Your task to perform on an android device: turn vacation reply on in the gmail app Image 0: 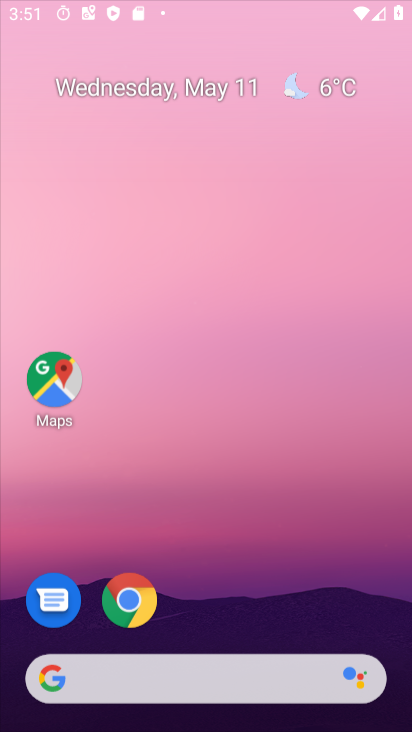
Step 0: click (264, 161)
Your task to perform on an android device: turn vacation reply on in the gmail app Image 1: 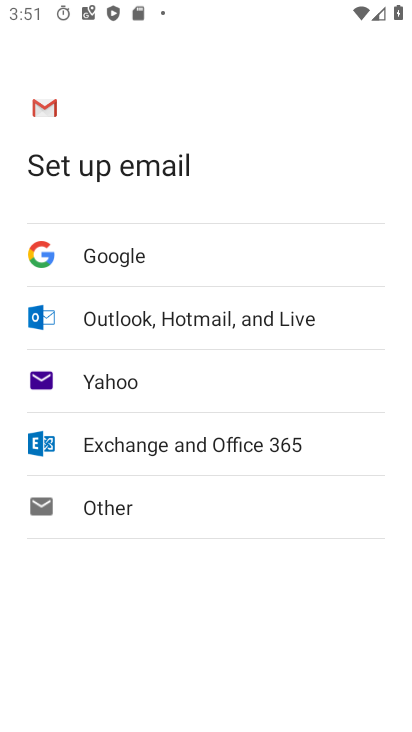
Step 1: press back button
Your task to perform on an android device: turn vacation reply on in the gmail app Image 2: 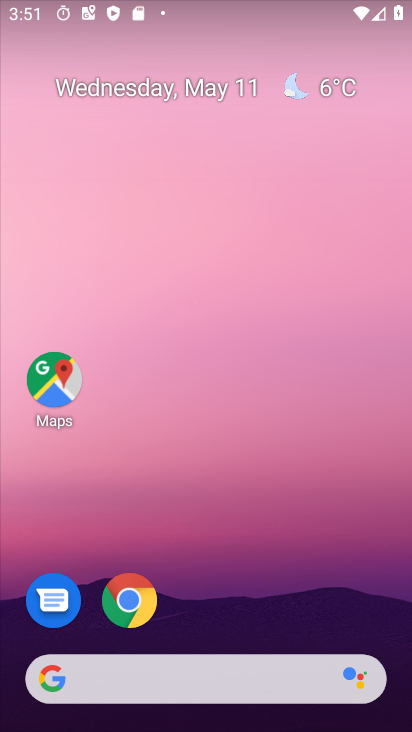
Step 2: drag from (262, 588) to (168, 101)
Your task to perform on an android device: turn vacation reply on in the gmail app Image 3: 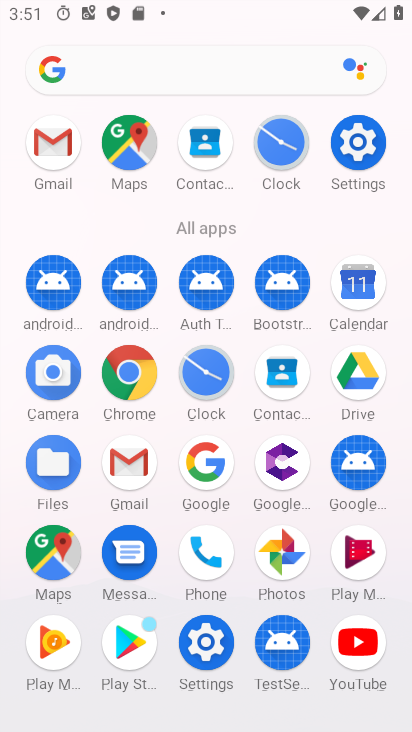
Step 3: click (133, 456)
Your task to perform on an android device: turn vacation reply on in the gmail app Image 4: 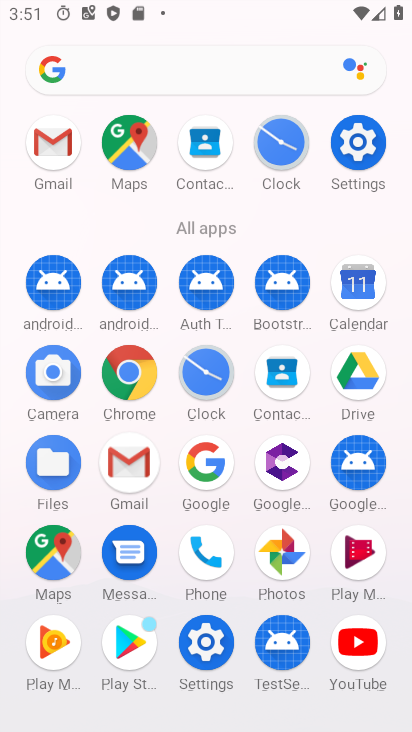
Step 4: click (112, 471)
Your task to perform on an android device: turn vacation reply on in the gmail app Image 5: 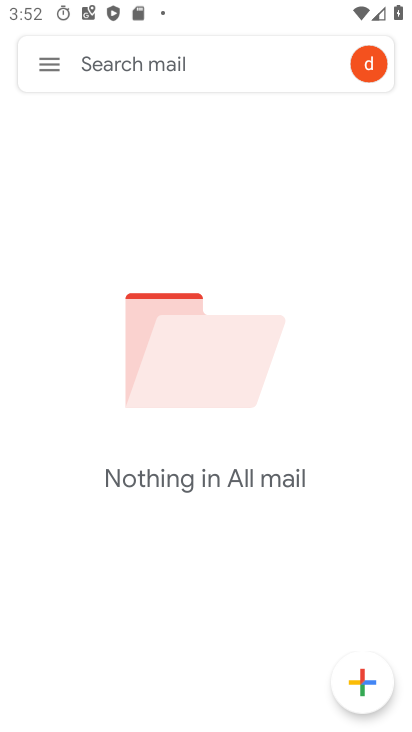
Step 5: drag from (33, 60) to (61, 79)
Your task to perform on an android device: turn vacation reply on in the gmail app Image 6: 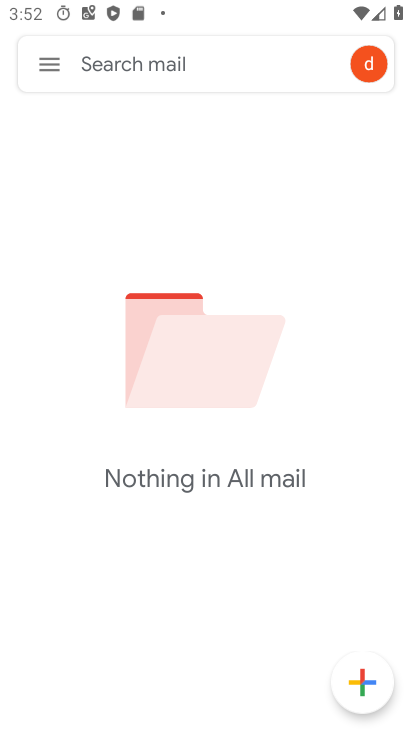
Step 6: click (54, 80)
Your task to perform on an android device: turn vacation reply on in the gmail app Image 7: 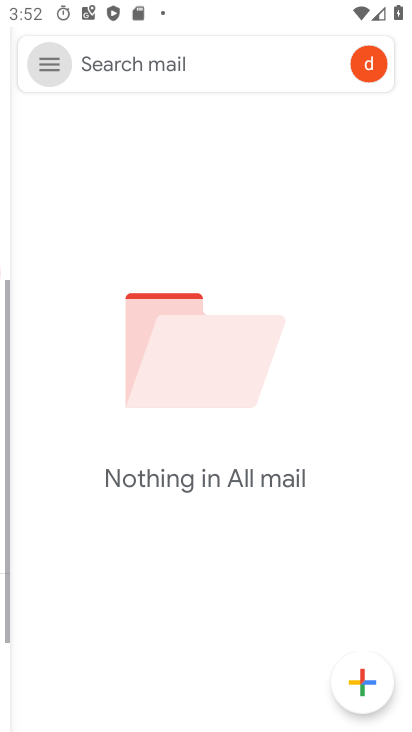
Step 7: click (53, 76)
Your task to perform on an android device: turn vacation reply on in the gmail app Image 8: 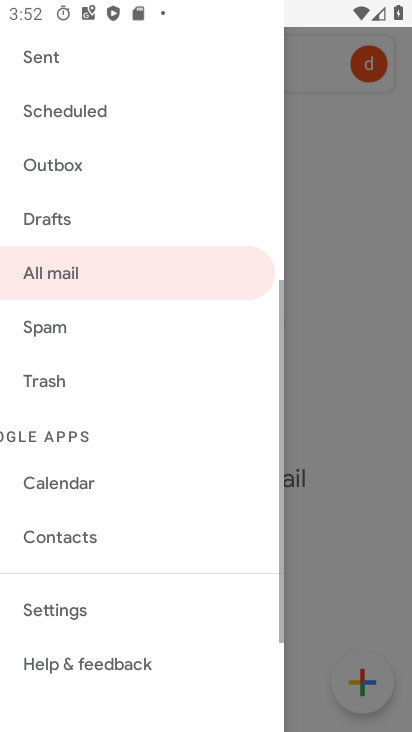
Step 8: click (66, 78)
Your task to perform on an android device: turn vacation reply on in the gmail app Image 9: 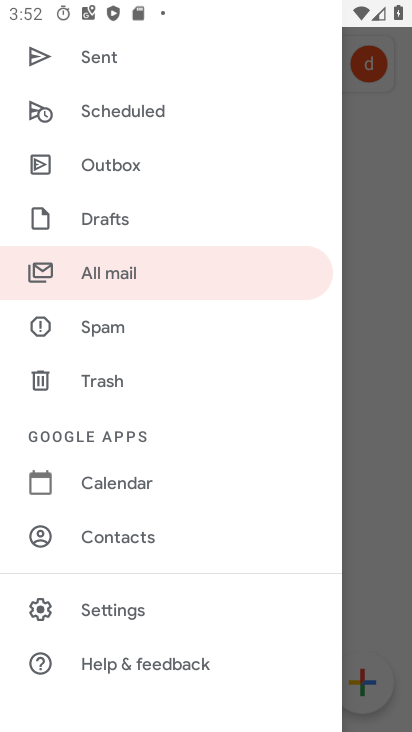
Step 9: click (123, 606)
Your task to perform on an android device: turn vacation reply on in the gmail app Image 10: 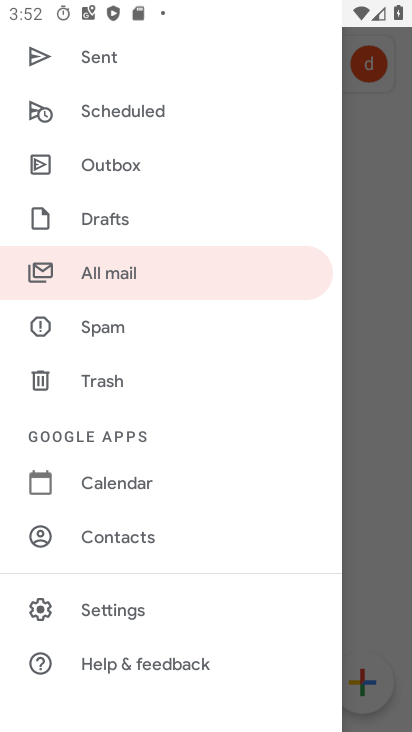
Step 10: click (123, 606)
Your task to perform on an android device: turn vacation reply on in the gmail app Image 11: 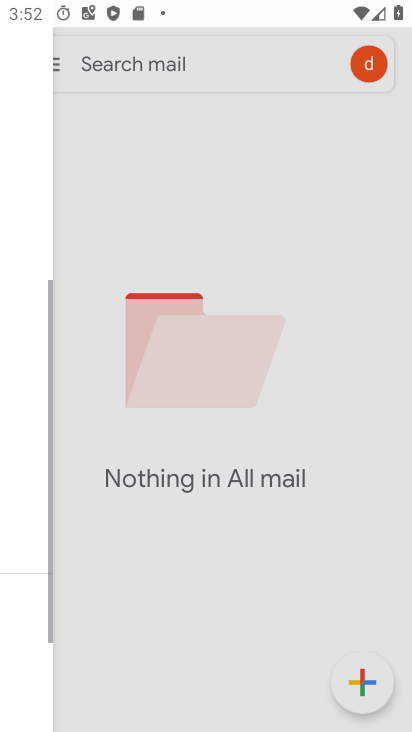
Step 11: click (123, 606)
Your task to perform on an android device: turn vacation reply on in the gmail app Image 12: 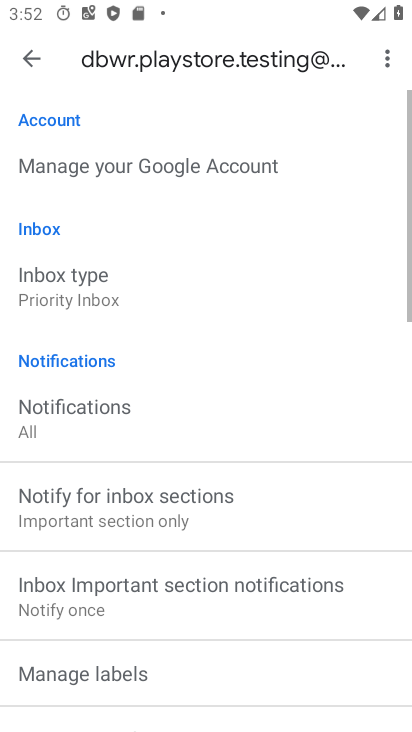
Step 12: drag from (167, 416) to (131, 9)
Your task to perform on an android device: turn vacation reply on in the gmail app Image 13: 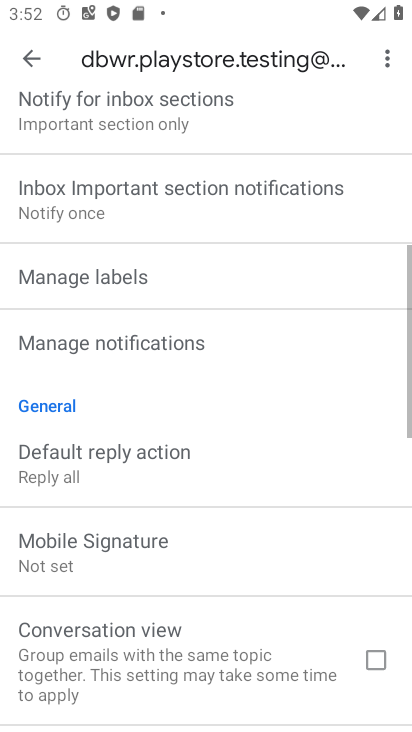
Step 13: drag from (174, 409) to (174, 61)
Your task to perform on an android device: turn vacation reply on in the gmail app Image 14: 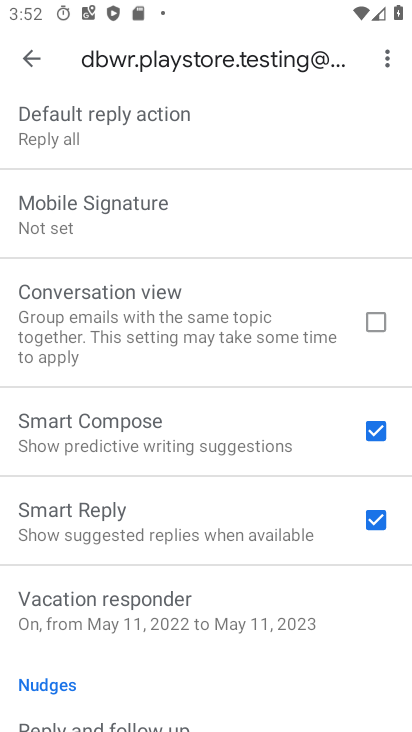
Step 14: click (118, 617)
Your task to perform on an android device: turn vacation reply on in the gmail app Image 15: 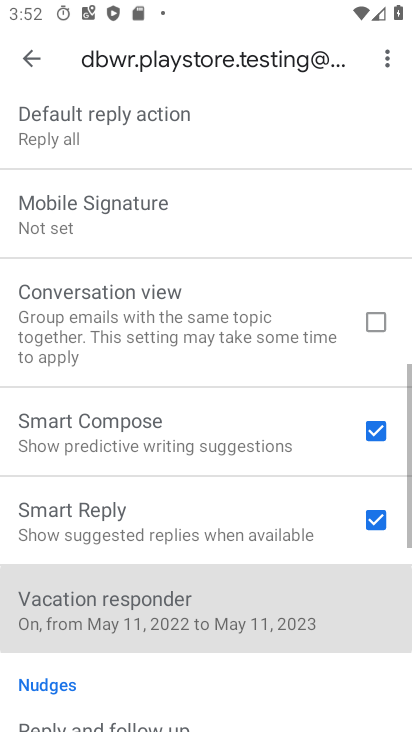
Step 15: click (118, 617)
Your task to perform on an android device: turn vacation reply on in the gmail app Image 16: 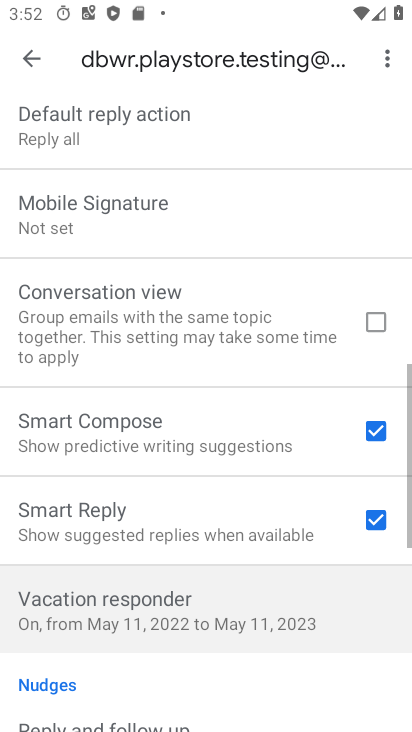
Step 16: click (117, 616)
Your task to perform on an android device: turn vacation reply on in the gmail app Image 17: 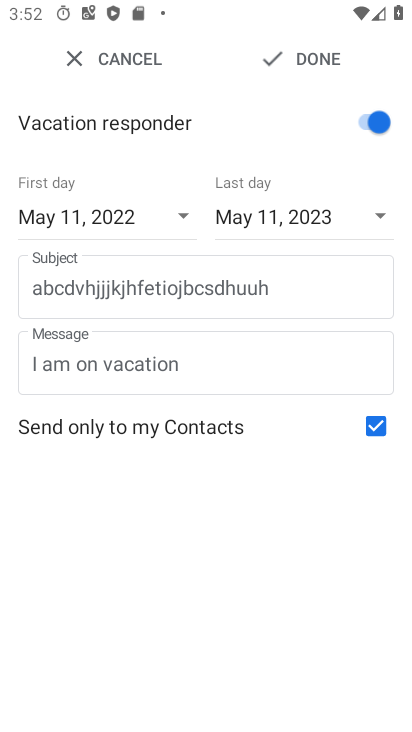
Step 17: task complete